Your task to perform on an android device: snooze an email in the gmail app Image 0: 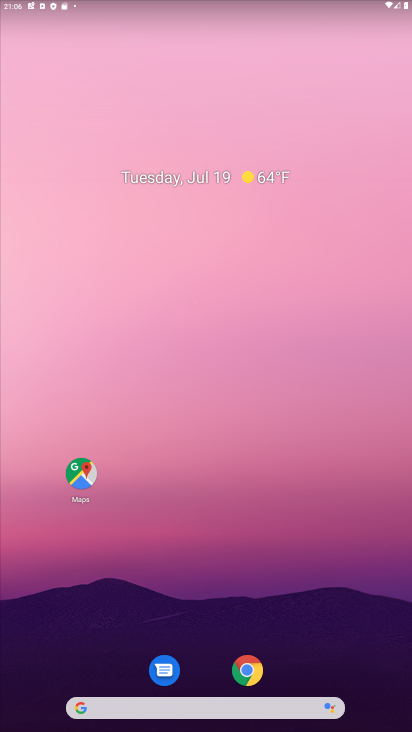
Step 0: drag from (282, 642) to (224, 306)
Your task to perform on an android device: snooze an email in the gmail app Image 1: 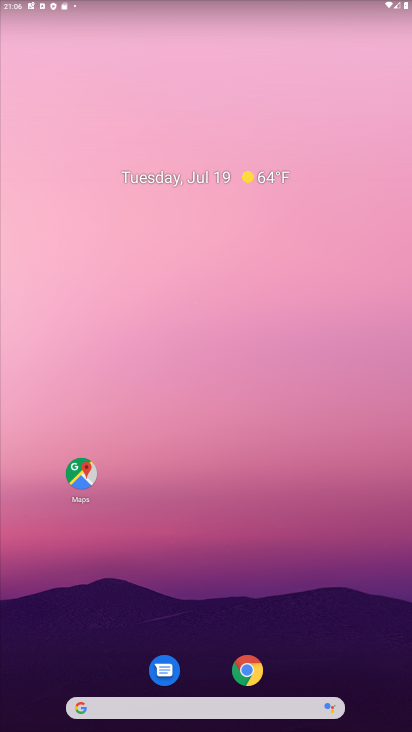
Step 1: drag from (288, 702) to (187, 231)
Your task to perform on an android device: snooze an email in the gmail app Image 2: 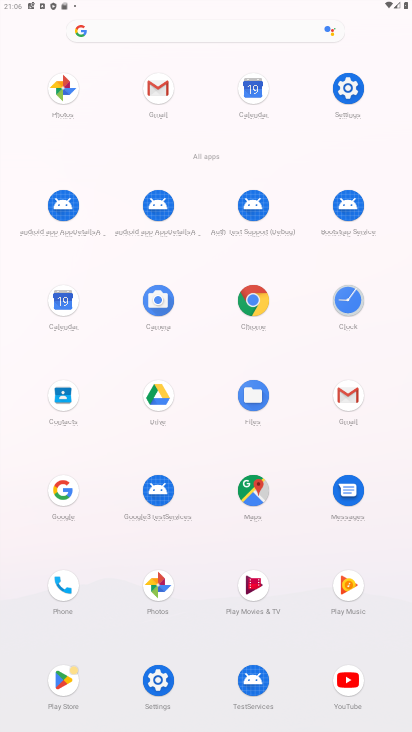
Step 2: click (154, 89)
Your task to perform on an android device: snooze an email in the gmail app Image 3: 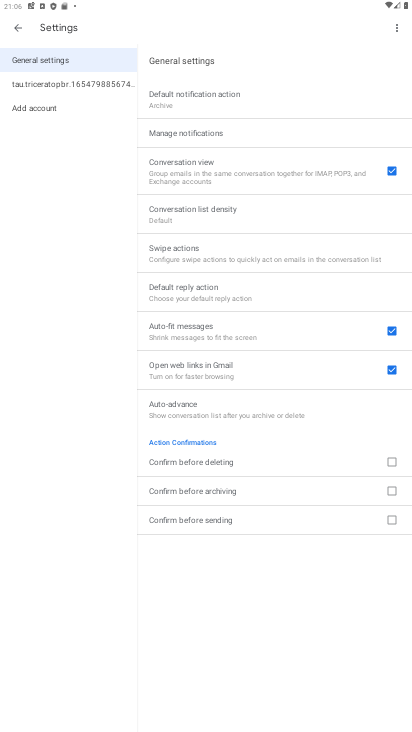
Step 3: click (12, 28)
Your task to perform on an android device: snooze an email in the gmail app Image 4: 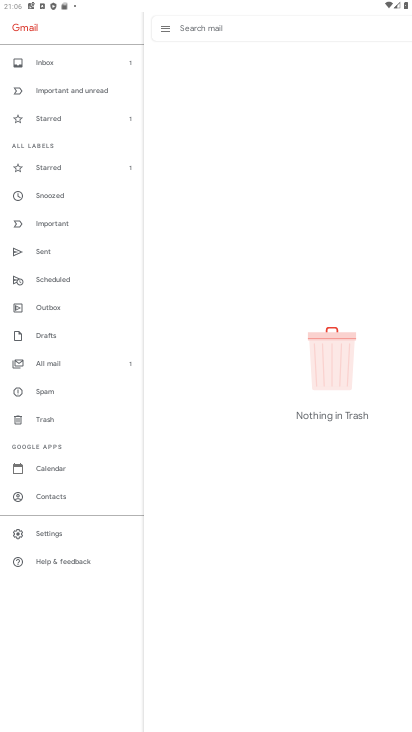
Step 4: click (36, 60)
Your task to perform on an android device: snooze an email in the gmail app Image 5: 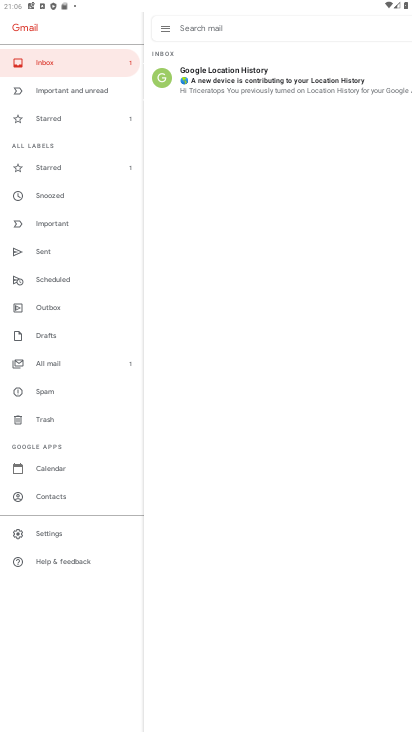
Step 5: click (270, 91)
Your task to perform on an android device: snooze an email in the gmail app Image 6: 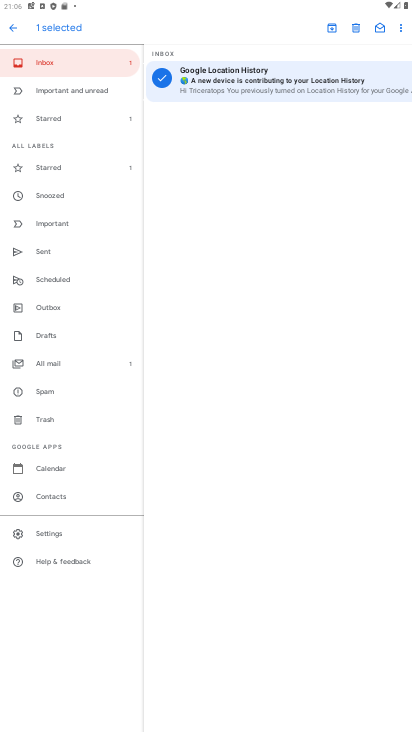
Step 6: click (402, 22)
Your task to perform on an android device: snooze an email in the gmail app Image 7: 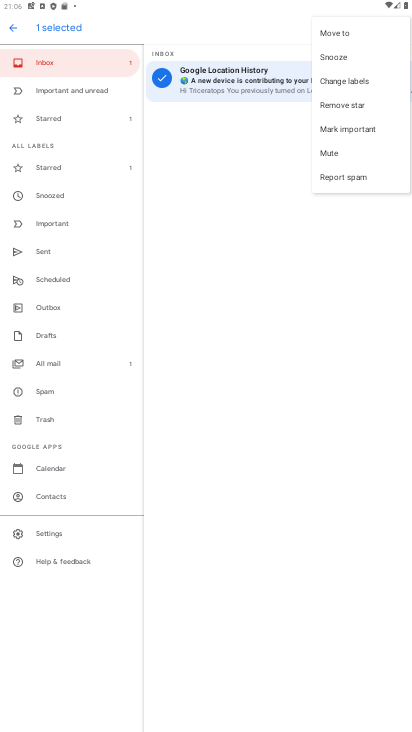
Step 7: click (332, 56)
Your task to perform on an android device: snooze an email in the gmail app Image 8: 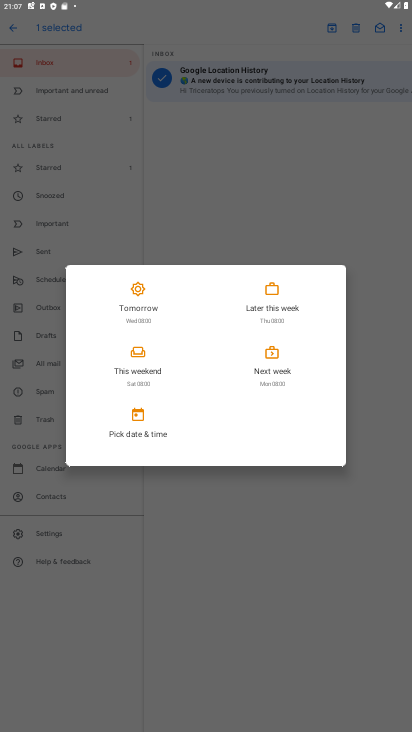
Step 8: click (171, 296)
Your task to perform on an android device: snooze an email in the gmail app Image 9: 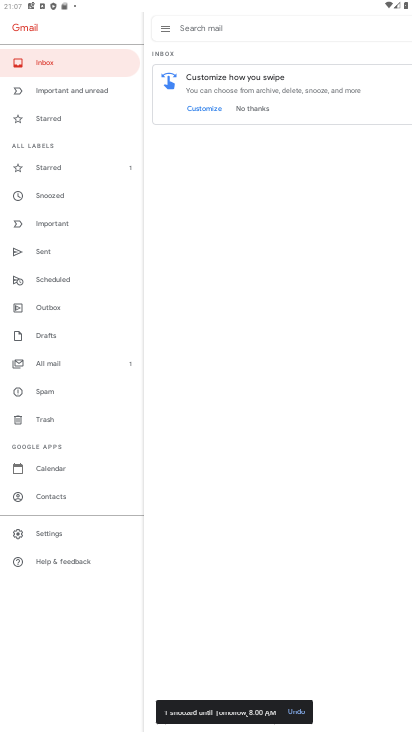
Step 9: task complete